Your task to perform on an android device: change alarm snooze length Image 0: 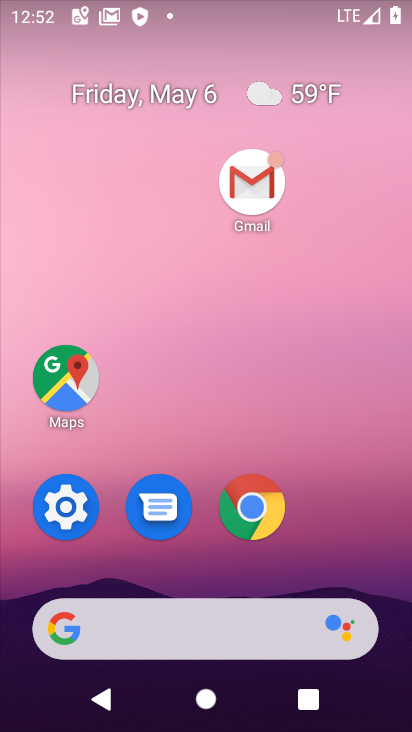
Step 0: drag from (321, 518) to (293, 176)
Your task to perform on an android device: change alarm snooze length Image 1: 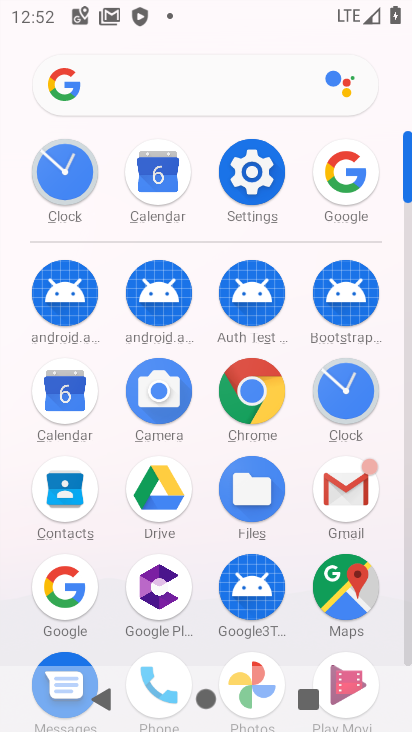
Step 1: click (341, 397)
Your task to perform on an android device: change alarm snooze length Image 2: 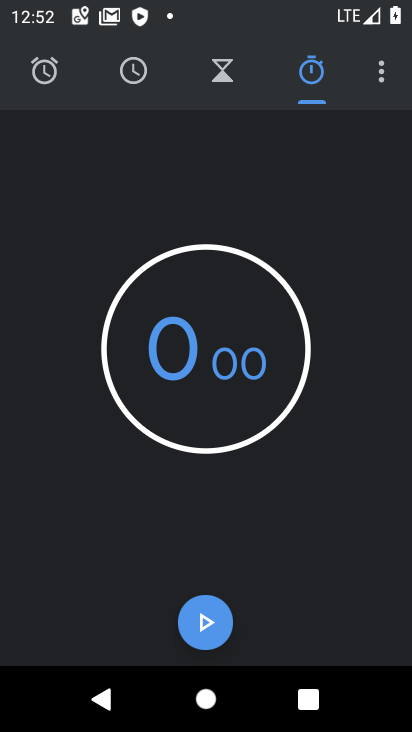
Step 2: click (379, 67)
Your task to perform on an android device: change alarm snooze length Image 3: 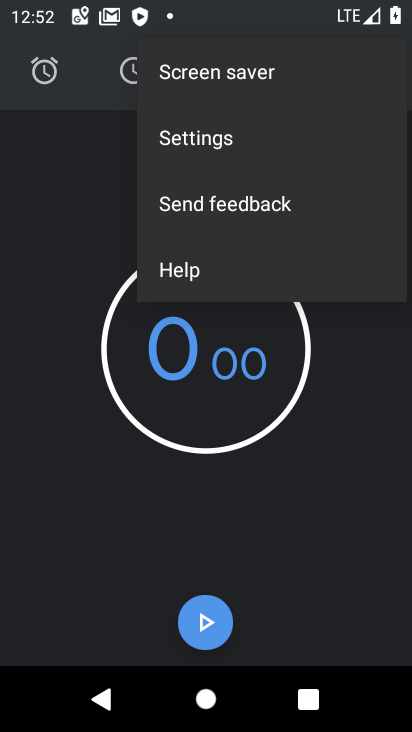
Step 3: click (213, 140)
Your task to perform on an android device: change alarm snooze length Image 4: 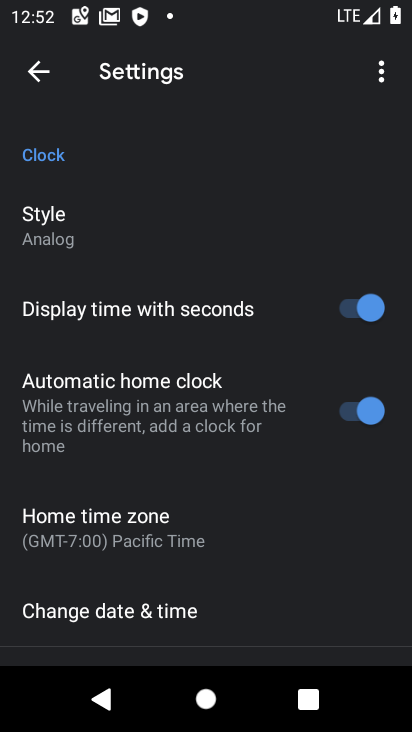
Step 4: drag from (284, 507) to (247, 161)
Your task to perform on an android device: change alarm snooze length Image 5: 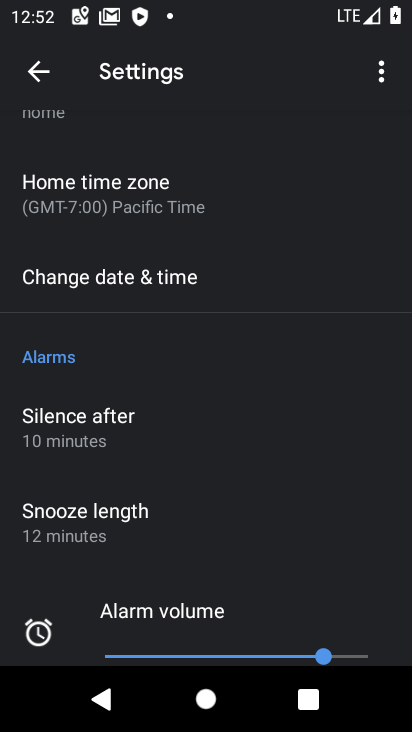
Step 5: click (104, 505)
Your task to perform on an android device: change alarm snooze length Image 6: 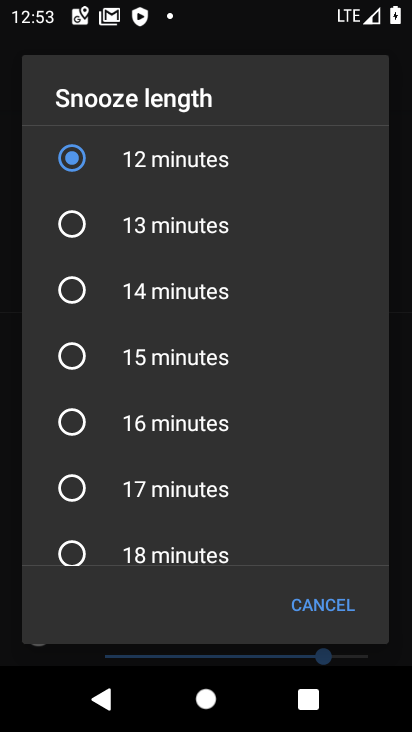
Step 6: click (70, 224)
Your task to perform on an android device: change alarm snooze length Image 7: 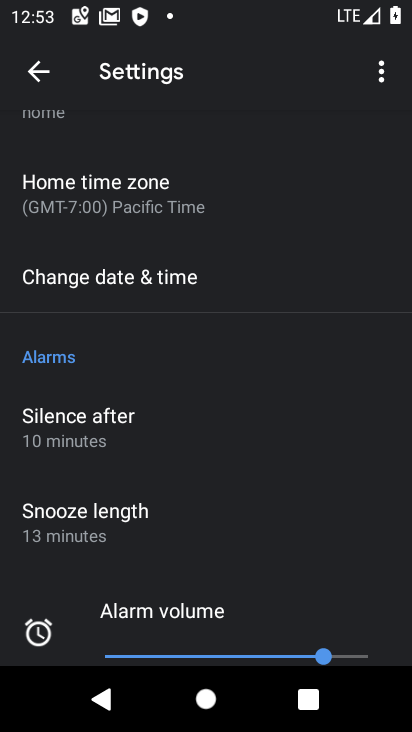
Step 7: task complete